Your task to perform on an android device: add a contact Image 0: 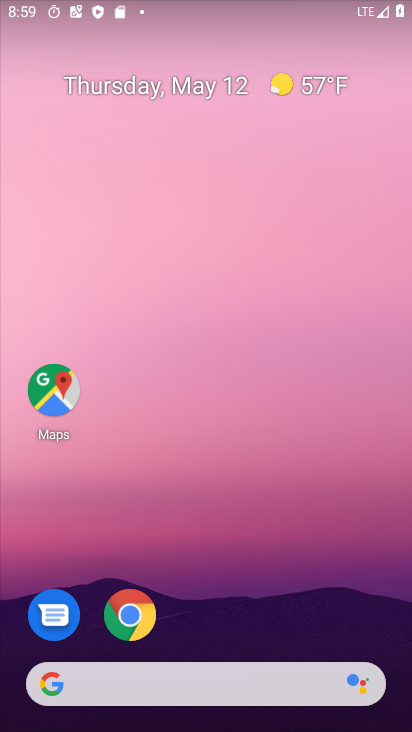
Step 0: drag from (285, 539) to (222, 5)
Your task to perform on an android device: add a contact Image 1: 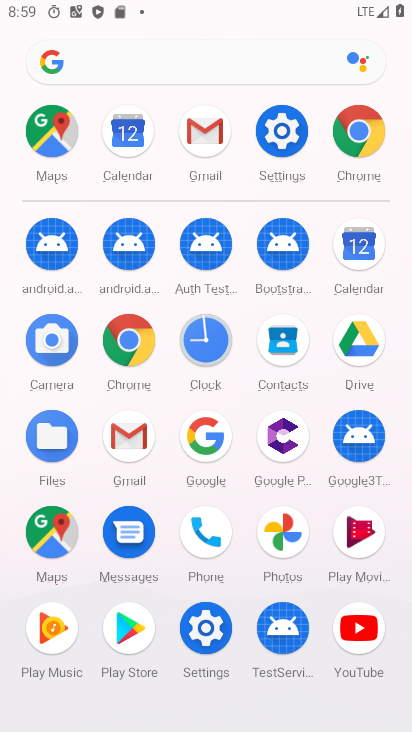
Step 1: drag from (19, 532) to (19, 224)
Your task to perform on an android device: add a contact Image 2: 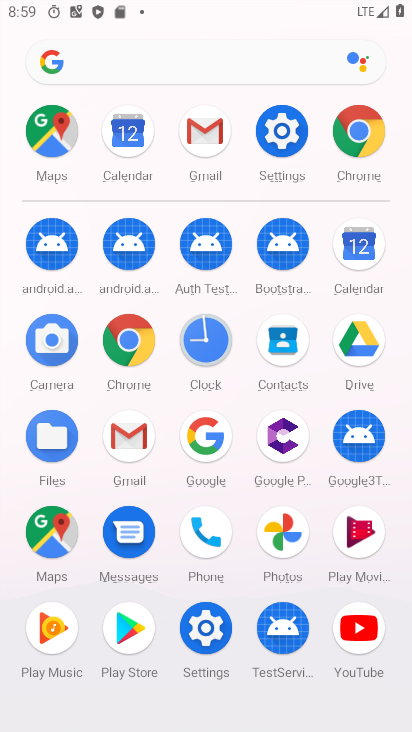
Step 2: click (279, 334)
Your task to perform on an android device: add a contact Image 3: 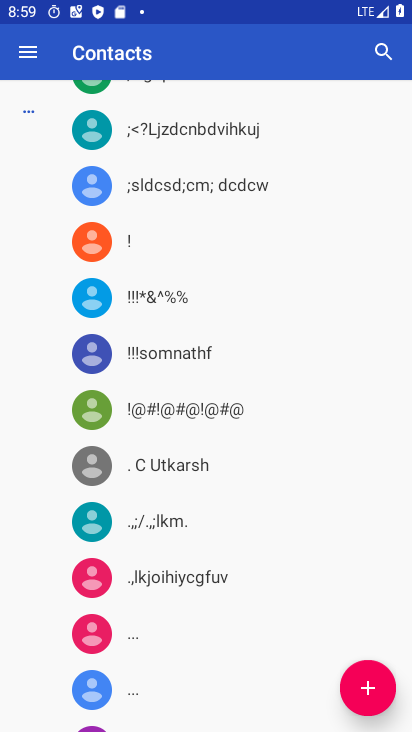
Step 3: click (367, 696)
Your task to perform on an android device: add a contact Image 4: 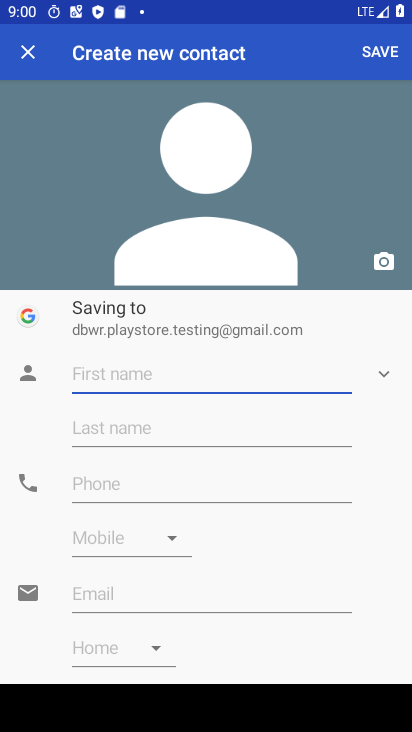
Step 4: type "CVCXZ"
Your task to perform on an android device: add a contact Image 5: 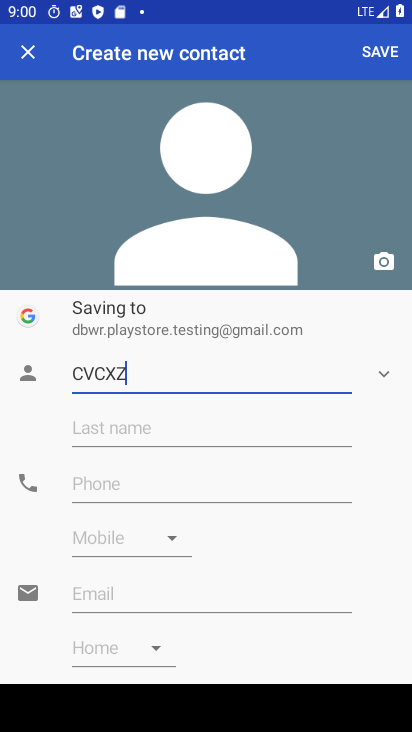
Step 5: type ""
Your task to perform on an android device: add a contact Image 6: 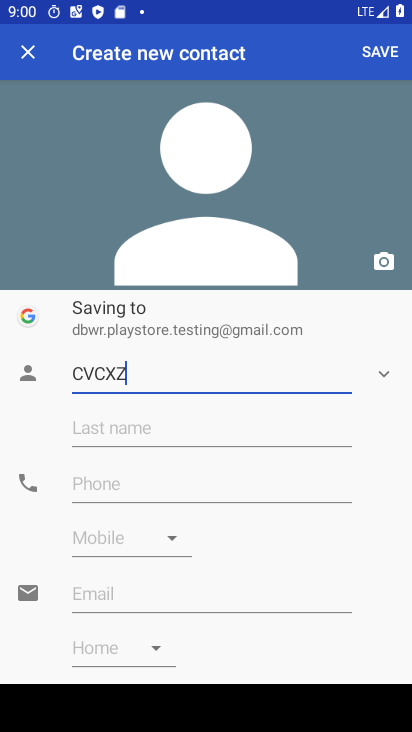
Step 6: click (180, 479)
Your task to perform on an android device: add a contact Image 7: 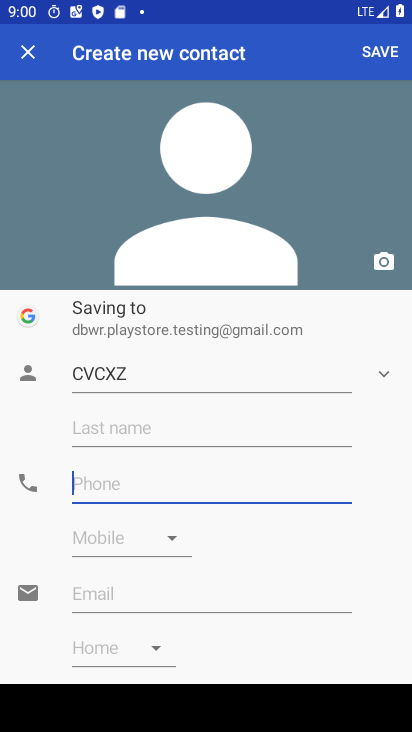
Step 7: type "456543345678"
Your task to perform on an android device: add a contact Image 8: 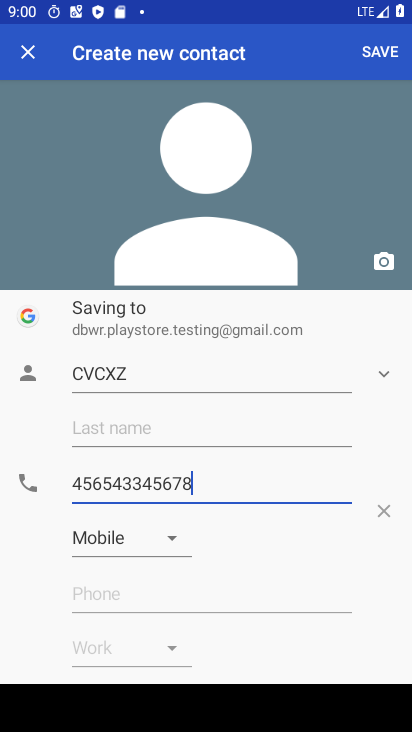
Step 8: type ""
Your task to perform on an android device: add a contact Image 9: 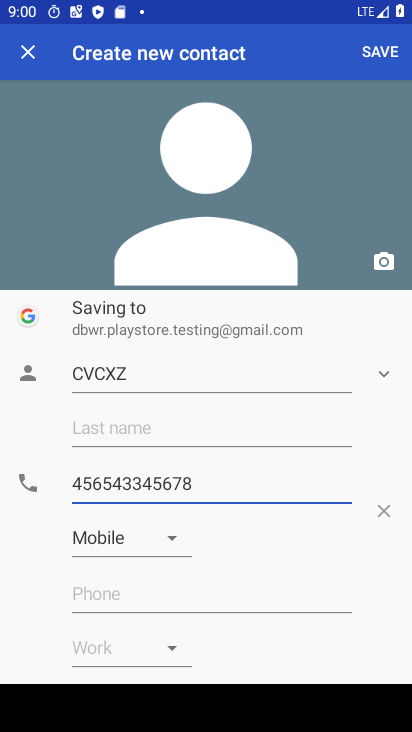
Step 9: click (365, 54)
Your task to perform on an android device: add a contact Image 10: 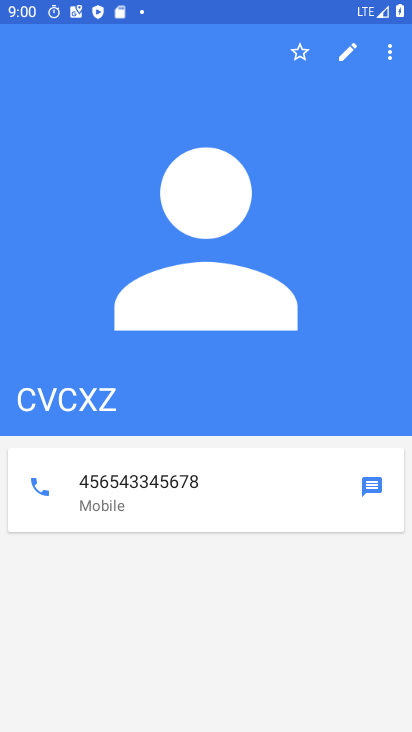
Step 10: task complete